Your task to perform on an android device: Turn on the flashlight Image 0: 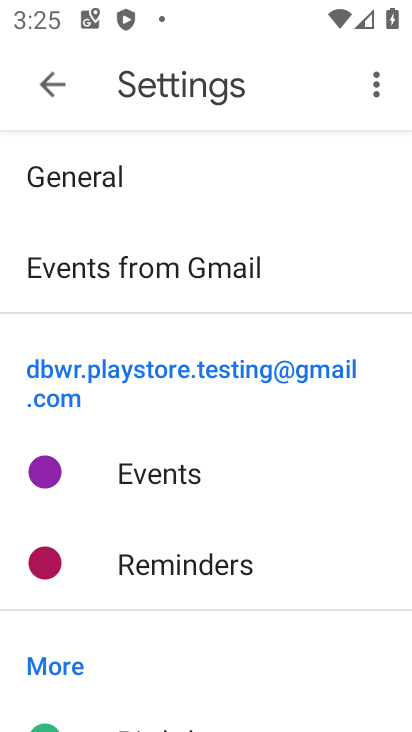
Step 0: press home button
Your task to perform on an android device: Turn on the flashlight Image 1: 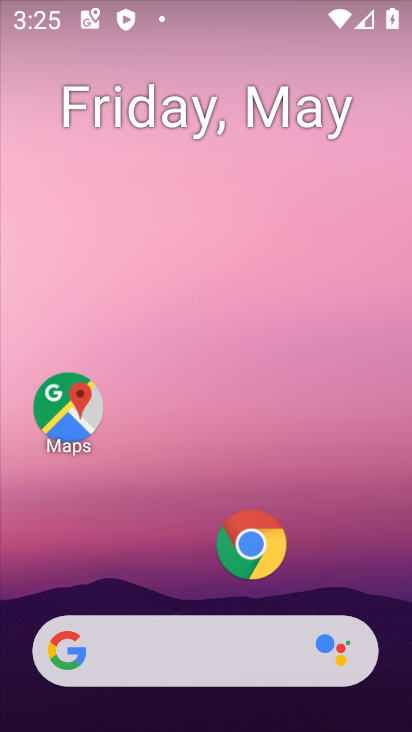
Step 1: drag from (207, 592) to (249, 160)
Your task to perform on an android device: Turn on the flashlight Image 2: 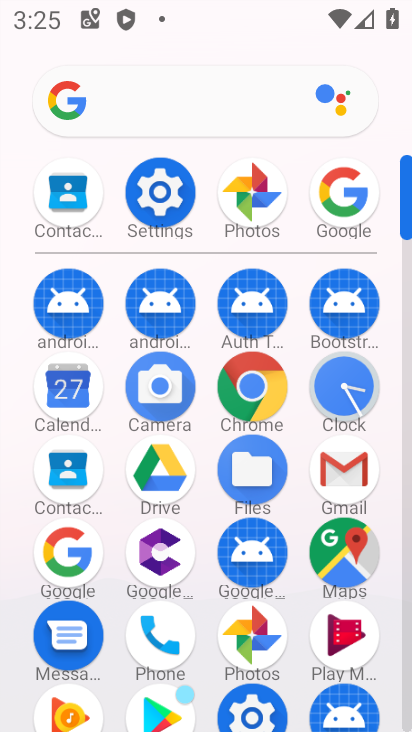
Step 2: click (178, 180)
Your task to perform on an android device: Turn on the flashlight Image 3: 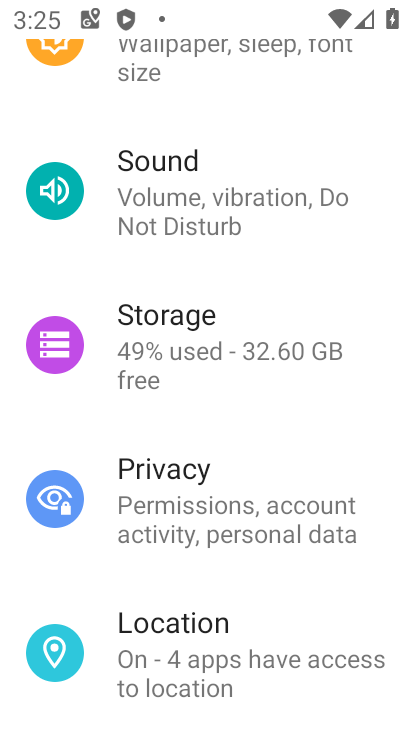
Step 3: task complete